Your task to perform on an android device: refresh tabs in the chrome app Image 0: 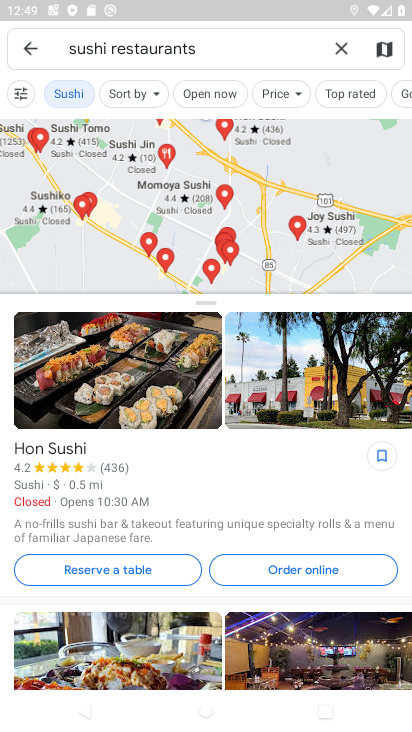
Step 0: press home button
Your task to perform on an android device: refresh tabs in the chrome app Image 1: 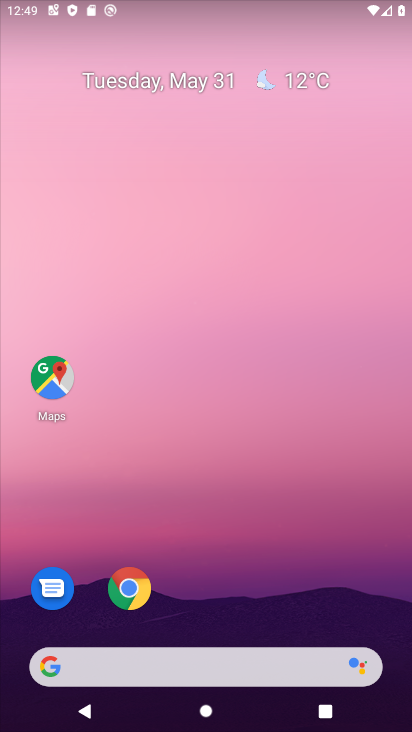
Step 1: click (48, 670)
Your task to perform on an android device: refresh tabs in the chrome app Image 2: 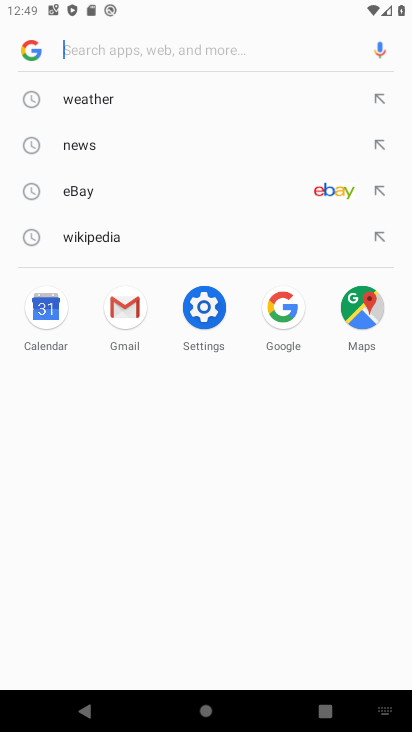
Step 2: click (22, 50)
Your task to perform on an android device: refresh tabs in the chrome app Image 3: 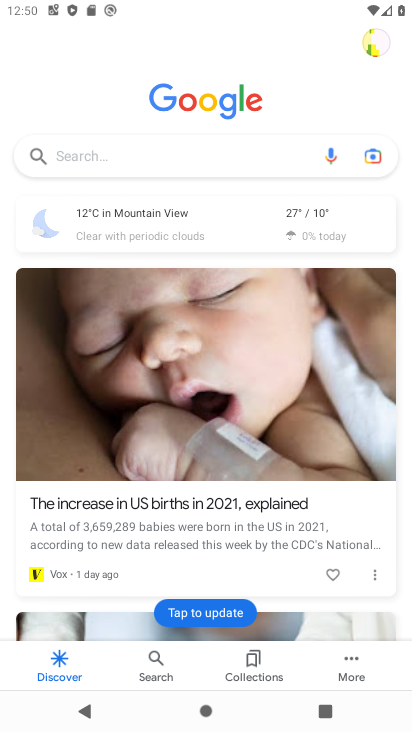
Step 3: press home button
Your task to perform on an android device: refresh tabs in the chrome app Image 4: 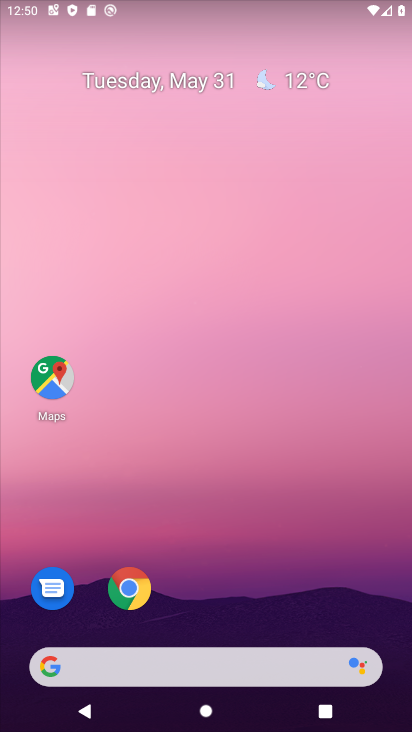
Step 4: click (138, 587)
Your task to perform on an android device: refresh tabs in the chrome app Image 5: 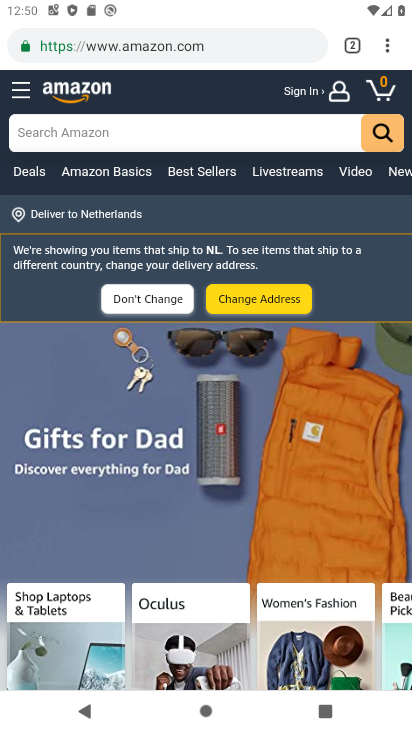
Step 5: click (387, 49)
Your task to perform on an android device: refresh tabs in the chrome app Image 6: 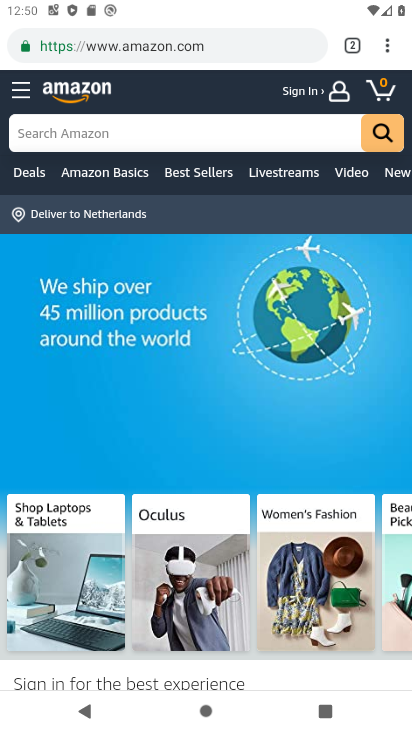
Step 6: click (386, 48)
Your task to perform on an android device: refresh tabs in the chrome app Image 7: 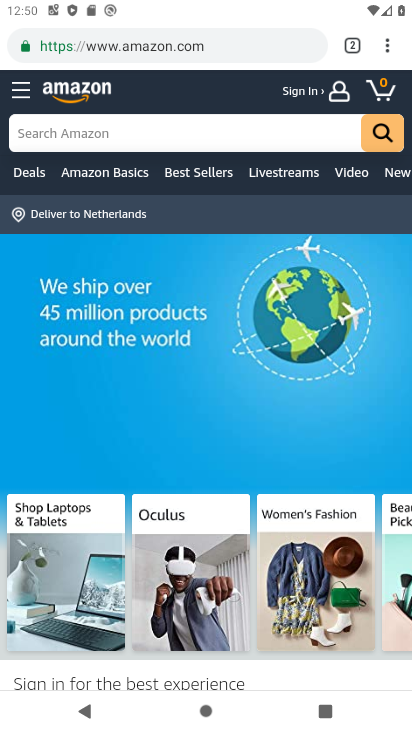
Step 7: click (391, 49)
Your task to perform on an android device: refresh tabs in the chrome app Image 8: 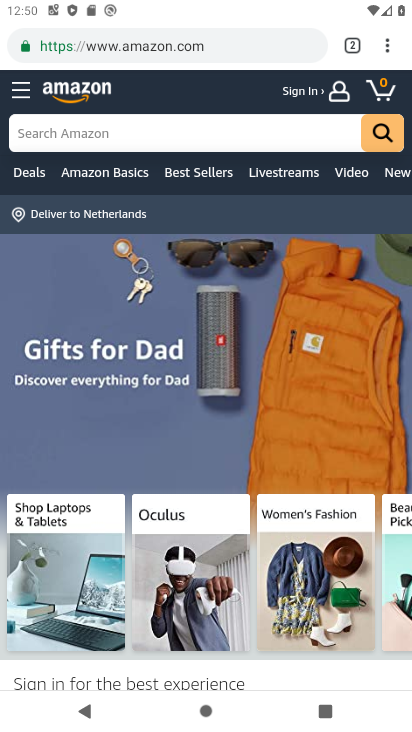
Step 8: click (387, 49)
Your task to perform on an android device: refresh tabs in the chrome app Image 9: 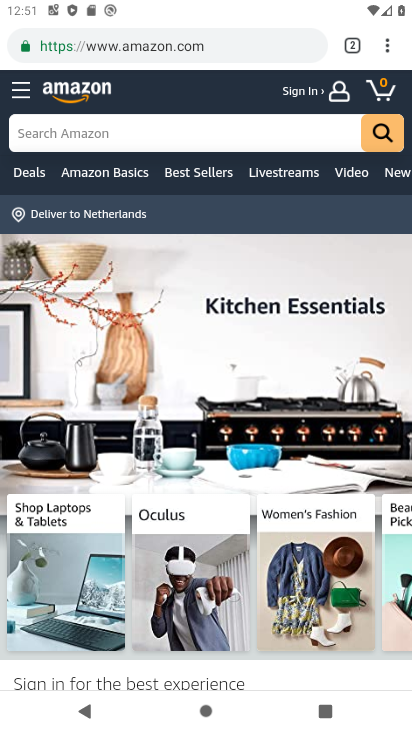
Step 9: click (388, 45)
Your task to perform on an android device: refresh tabs in the chrome app Image 10: 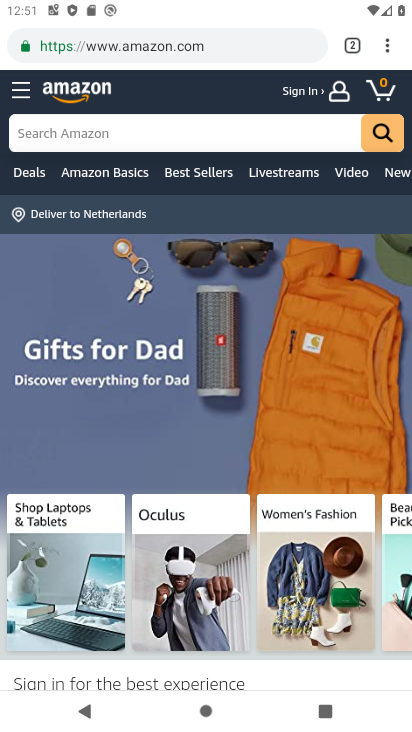
Step 10: click (389, 47)
Your task to perform on an android device: refresh tabs in the chrome app Image 11: 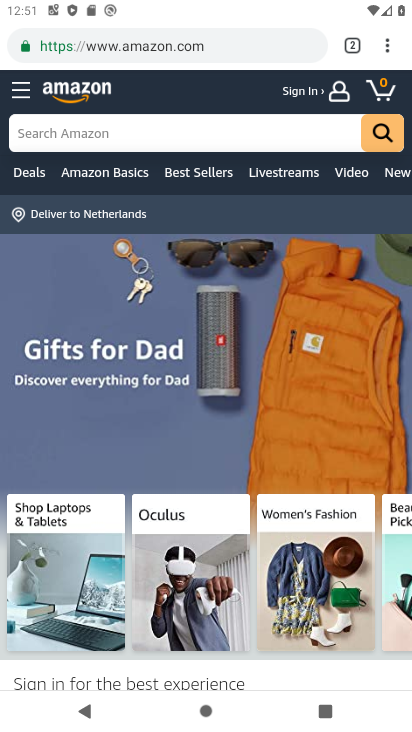
Step 11: click (392, 49)
Your task to perform on an android device: refresh tabs in the chrome app Image 12: 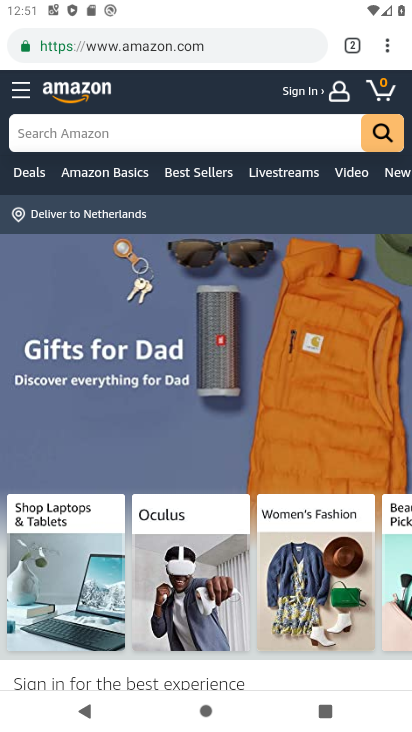
Step 12: click (388, 46)
Your task to perform on an android device: refresh tabs in the chrome app Image 13: 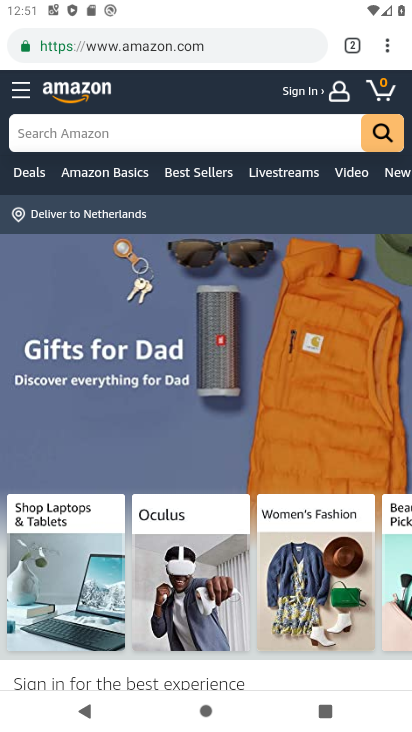
Step 13: click (392, 51)
Your task to perform on an android device: refresh tabs in the chrome app Image 14: 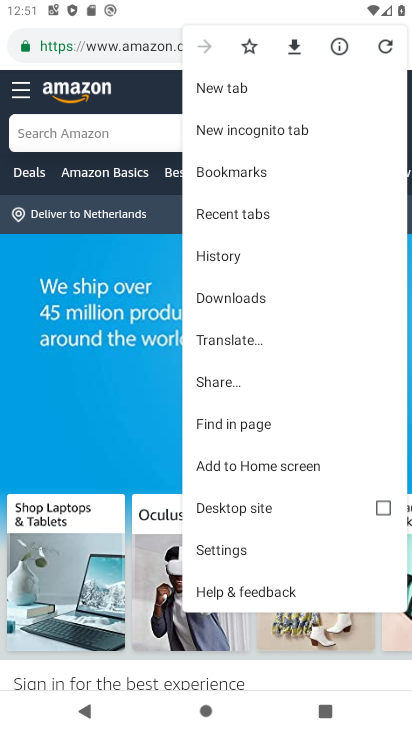
Step 14: click (383, 50)
Your task to perform on an android device: refresh tabs in the chrome app Image 15: 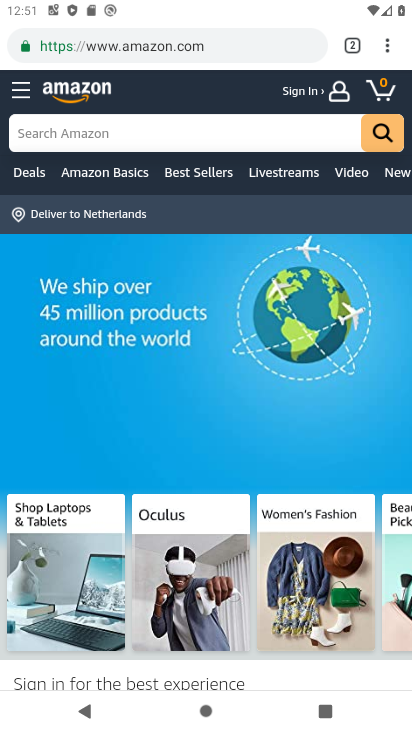
Step 15: task complete